Your task to perform on an android device: Go to Android settings Image 0: 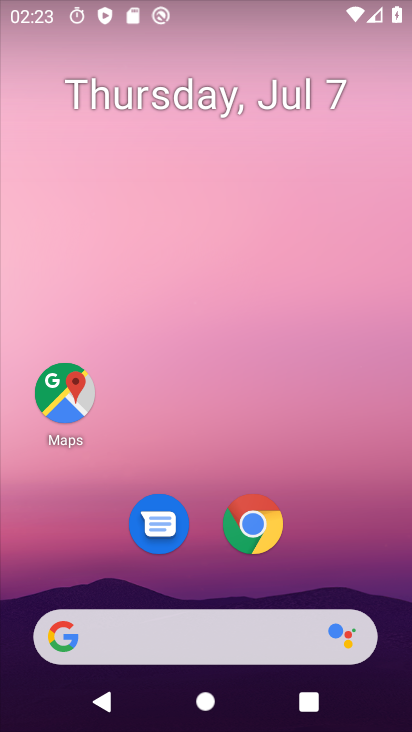
Step 0: drag from (343, 533) to (336, 12)
Your task to perform on an android device: Go to Android settings Image 1: 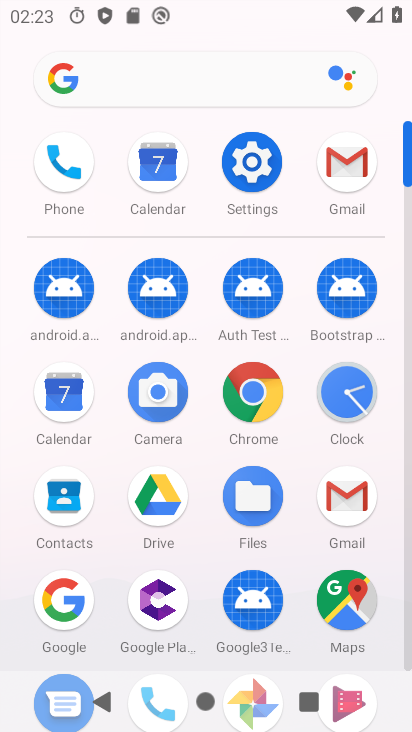
Step 1: click (254, 156)
Your task to perform on an android device: Go to Android settings Image 2: 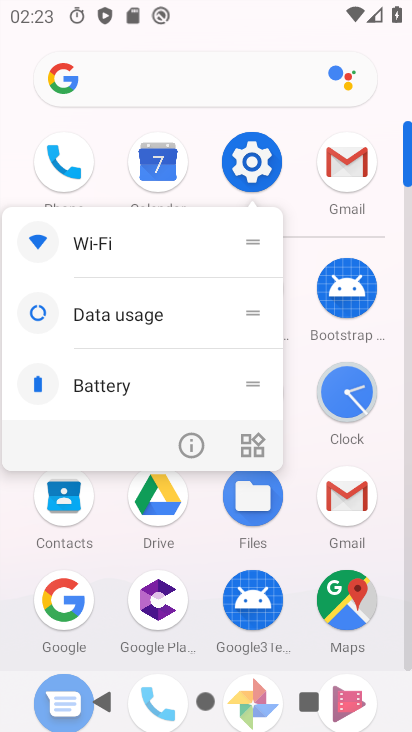
Step 2: click (254, 154)
Your task to perform on an android device: Go to Android settings Image 3: 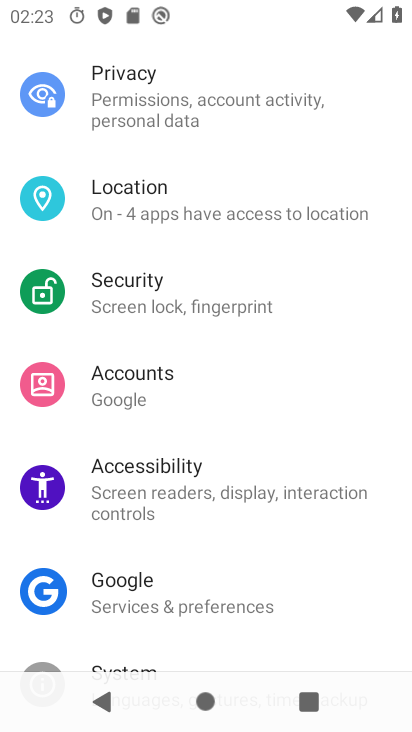
Step 3: drag from (240, 366) to (252, 23)
Your task to perform on an android device: Go to Android settings Image 4: 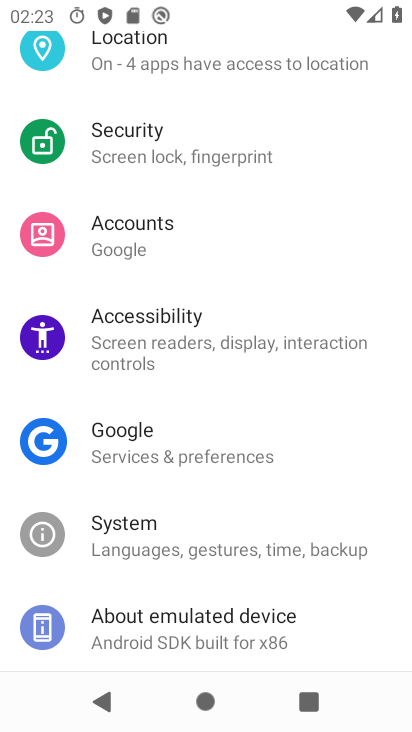
Step 4: click (234, 610)
Your task to perform on an android device: Go to Android settings Image 5: 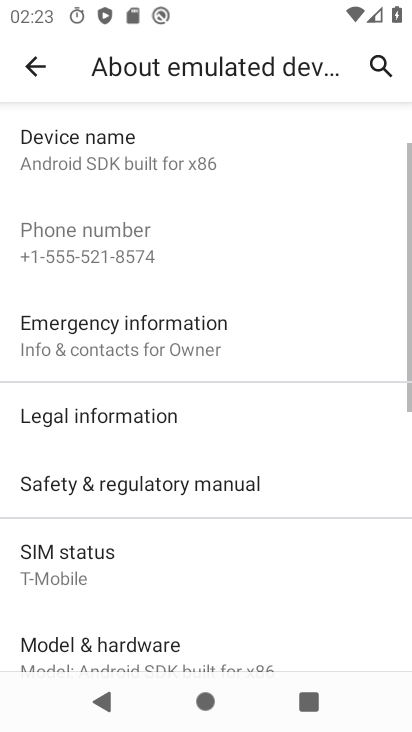
Step 5: task complete